Your task to perform on an android device: turn vacation reply on in the gmail app Image 0: 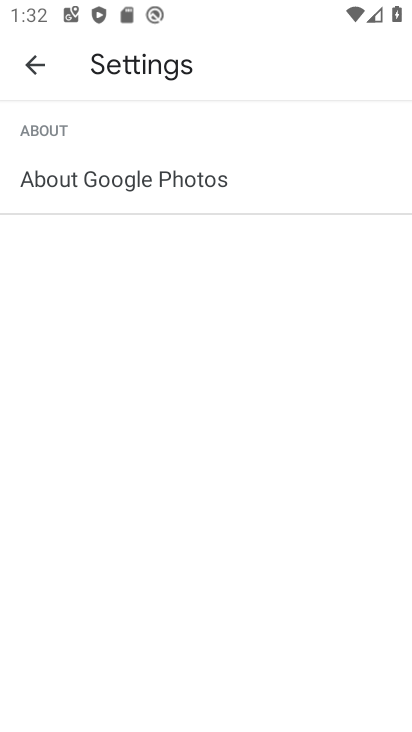
Step 0: press home button
Your task to perform on an android device: turn vacation reply on in the gmail app Image 1: 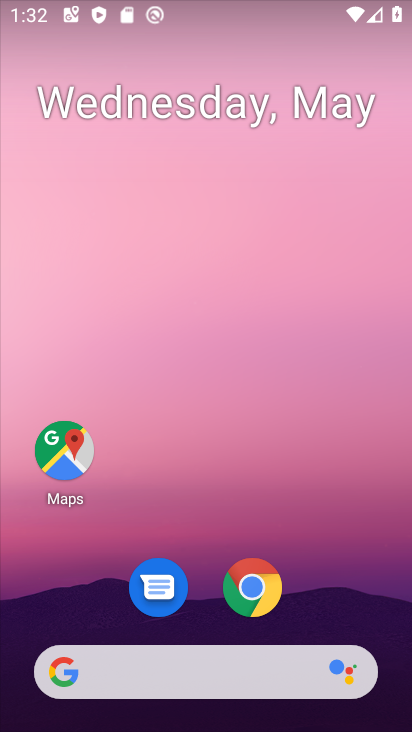
Step 1: drag from (326, 628) to (287, 3)
Your task to perform on an android device: turn vacation reply on in the gmail app Image 2: 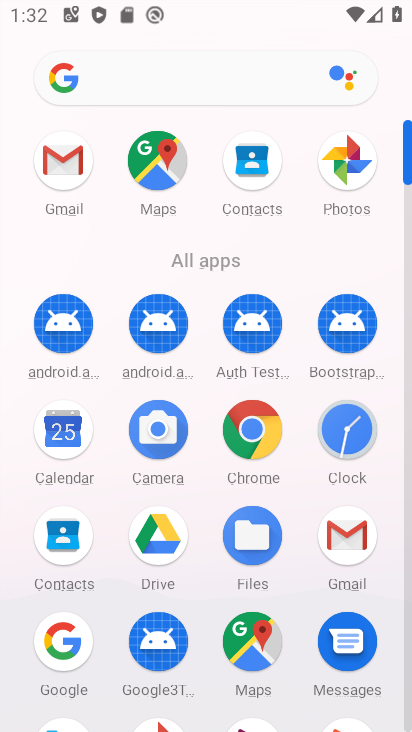
Step 2: click (343, 540)
Your task to perform on an android device: turn vacation reply on in the gmail app Image 3: 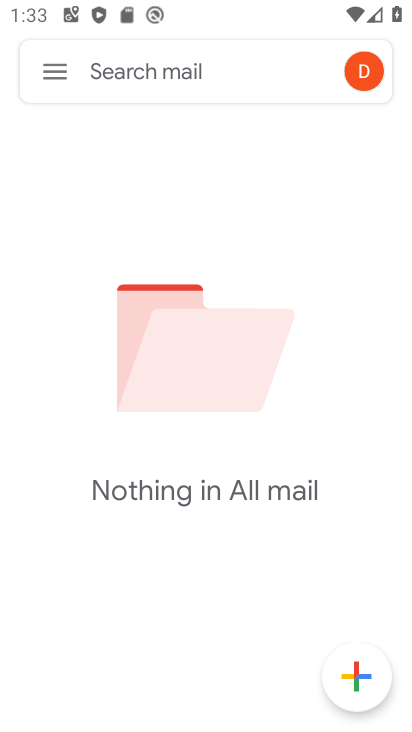
Step 3: click (59, 63)
Your task to perform on an android device: turn vacation reply on in the gmail app Image 4: 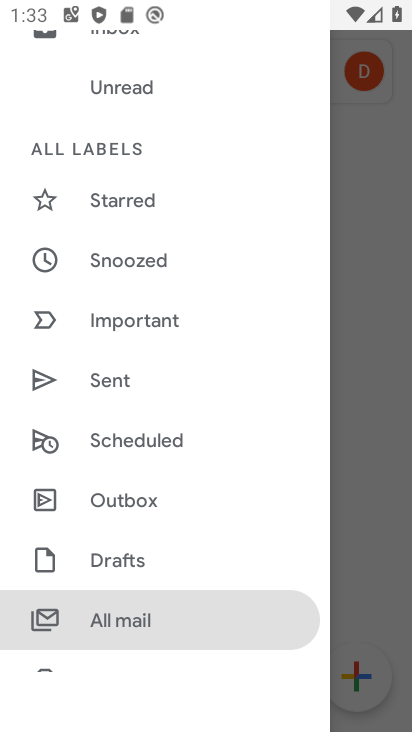
Step 4: drag from (194, 577) to (166, 19)
Your task to perform on an android device: turn vacation reply on in the gmail app Image 5: 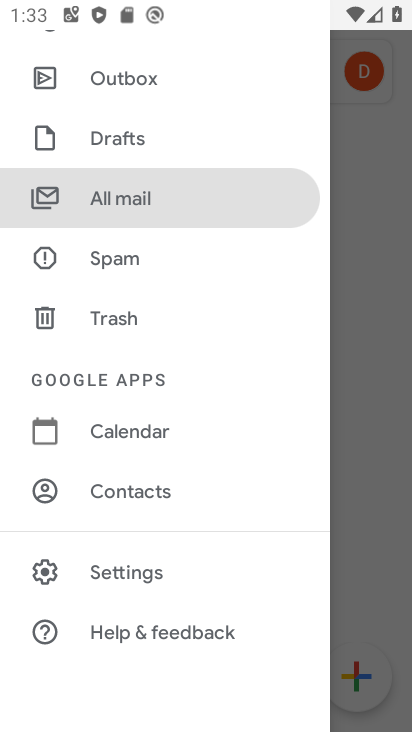
Step 5: click (151, 575)
Your task to perform on an android device: turn vacation reply on in the gmail app Image 6: 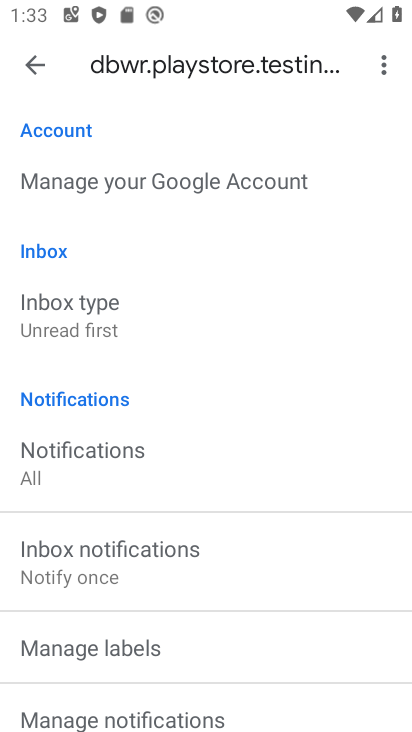
Step 6: drag from (192, 687) to (161, 114)
Your task to perform on an android device: turn vacation reply on in the gmail app Image 7: 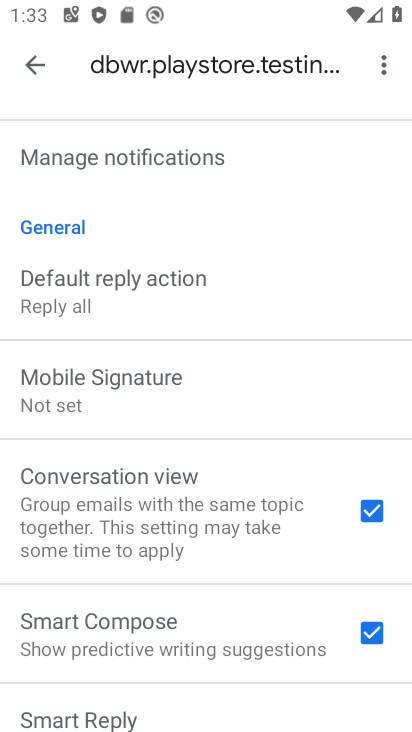
Step 7: drag from (185, 702) to (131, 304)
Your task to perform on an android device: turn vacation reply on in the gmail app Image 8: 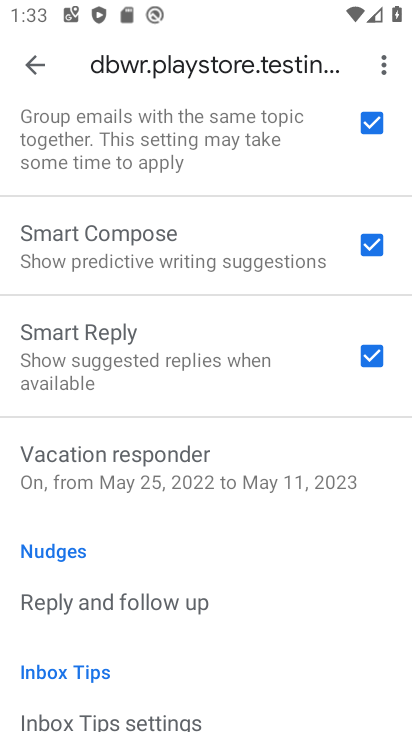
Step 8: click (140, 473)
Your task to perform on an android device: turn vacation reply on in the gmail app Image 9: 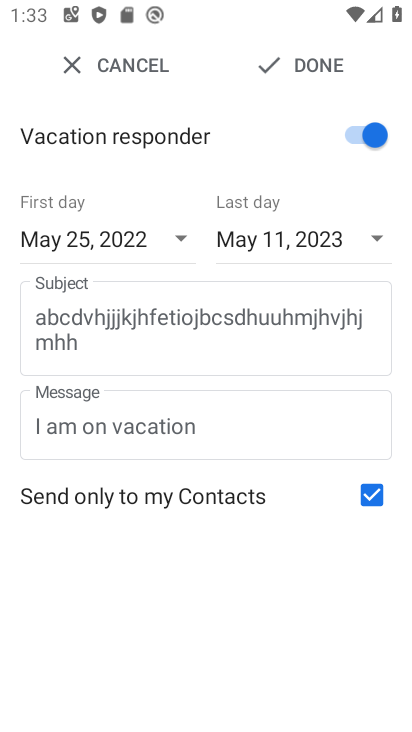
Step 9: task complete